Your task to perform on an android device: toggle notification dots Image 0: 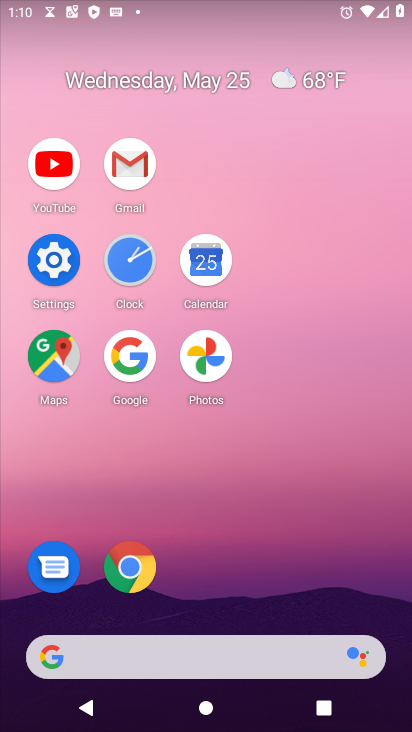
Step 0: click (35, 254)
Your task to perform on an android device: toggle notification dots Image 1: 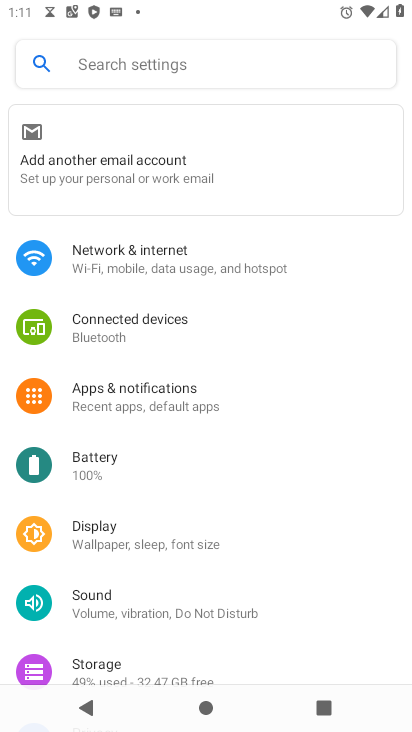
Step 1: click (174, 259)
Your task to perform on an android device: toggle notification dots Image 2: 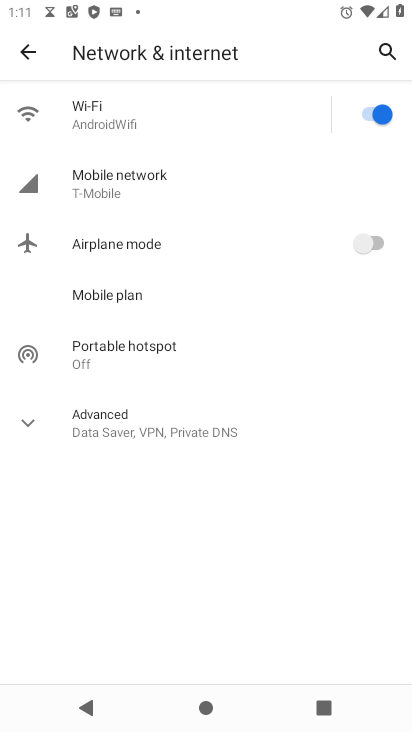
Step 2: press back button
Your task to perform on an android device: toggle notification dots Image 3: 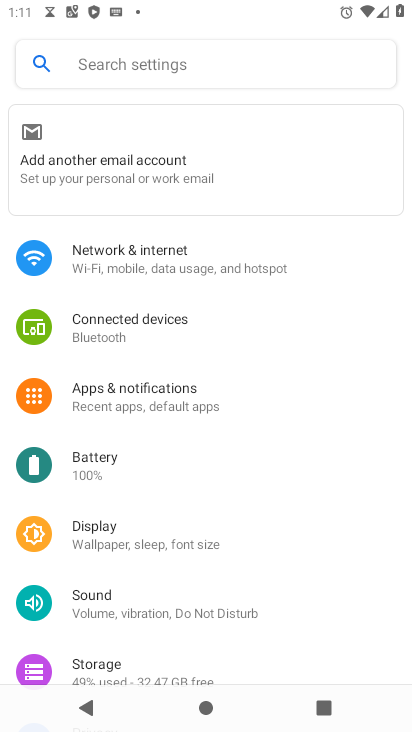
Step 3: click (183, 391)
Your task to perform on an android device: toggle notification dots Image 4: 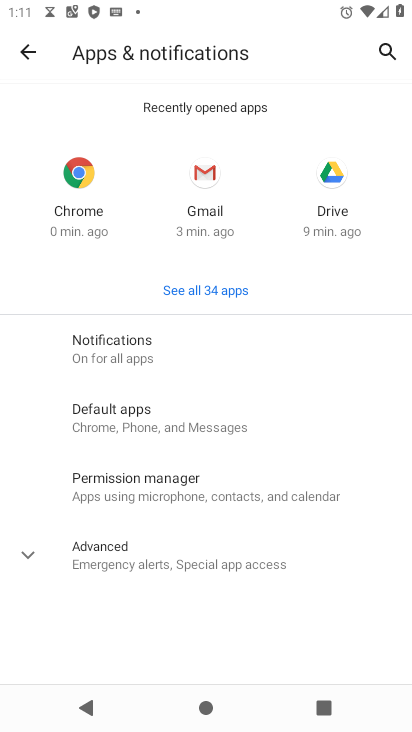
Step 4: click (125, 335)
Your task to perform on an android device: toggle notification dots Image 5: 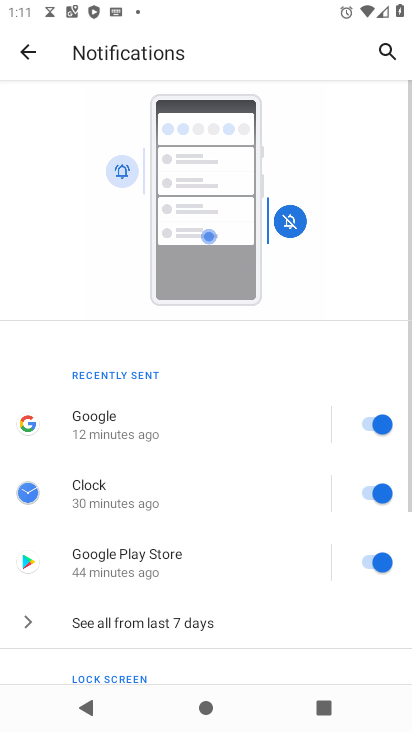
Step 5: drag from (238, 544) to (267, 177)
Your task to perform on an android device: toggle notification dots Image 6: 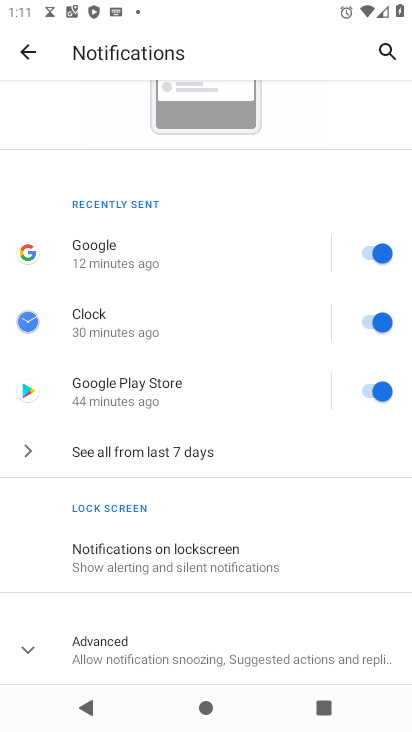
Step 6: click (155, 635)
Your task to perform on an android device: toggle notification dots Image 7: 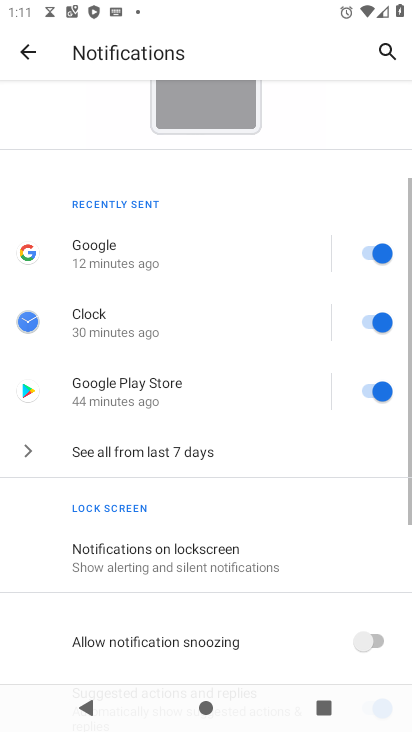
Step 7: drag from (149, 631) to (187, 296)
Your task to perform on an android device: toggle notification dots Image 8: 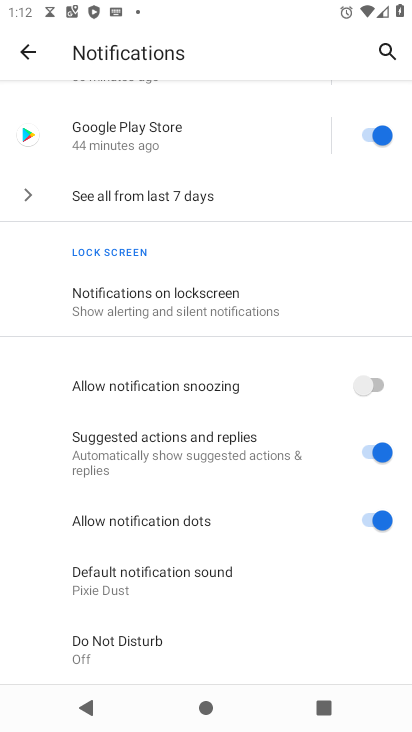
Step 8: click (380, 526)
Your task to perform on an android device: toggle notification dots Image 9: 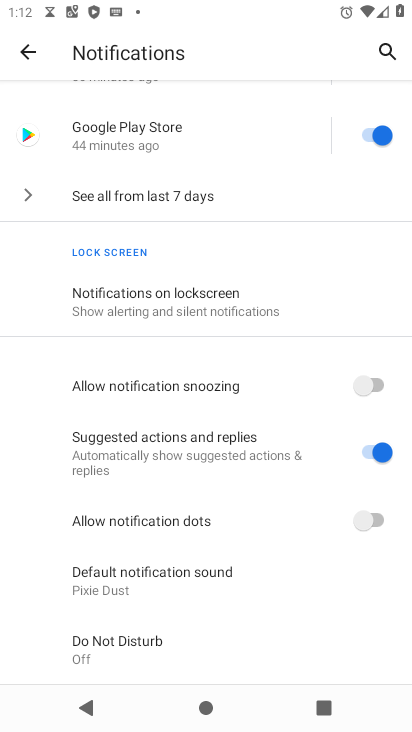
Step 9: task complete